Your task to perform on an android device: Go to location settings Image 0: 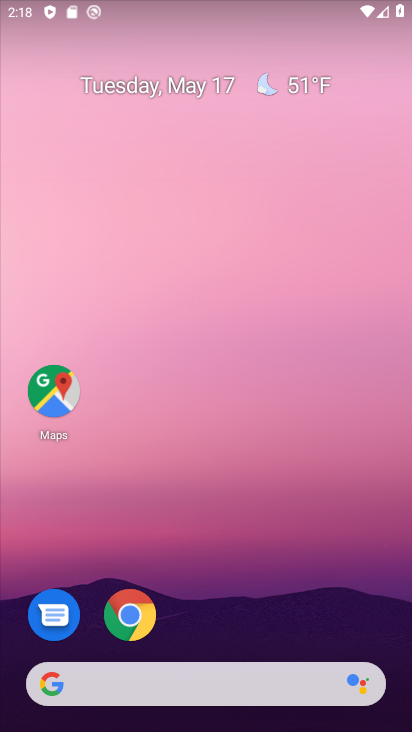
Step 0: press home button
Your task to perform on an android device: Go to location settings Image 1: 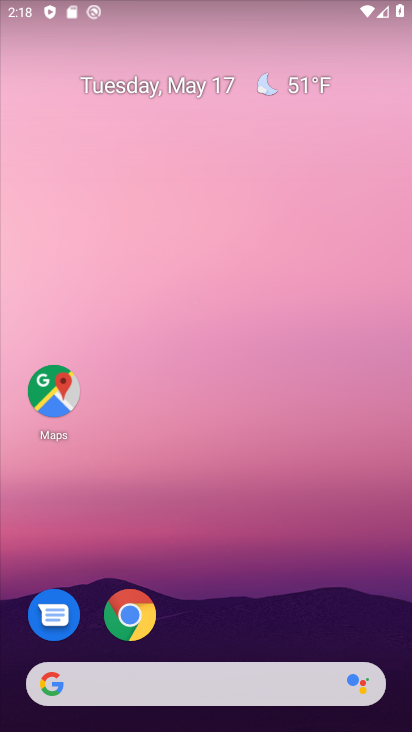
Step 1: drag from (212, 638) to (266, 140)
Your task to perform on an android device: Go to location settings Image 2: 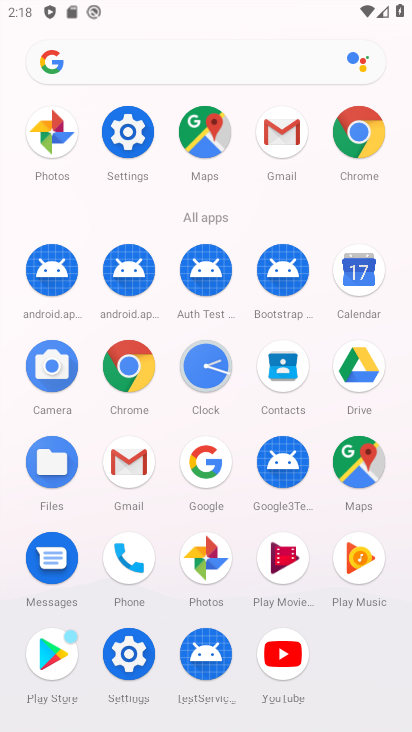
Step 2: click (126, 642)
Your task to perform on an android device: Go to location settings Image 3: 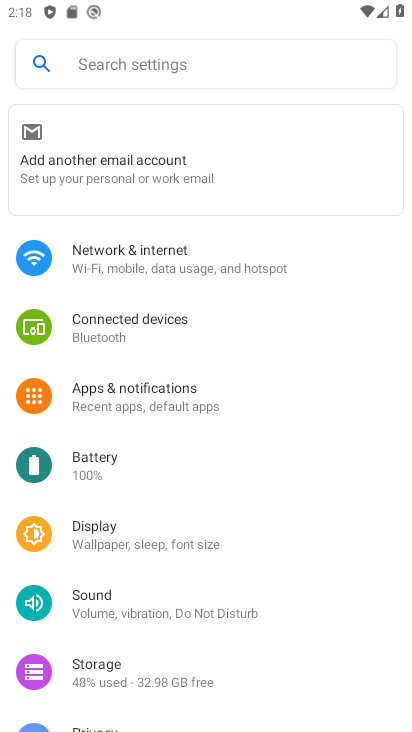
Step 3: drag from (150, 659) to (150, 268)
Your task to perform on an android device: Go to location settings Image 4: 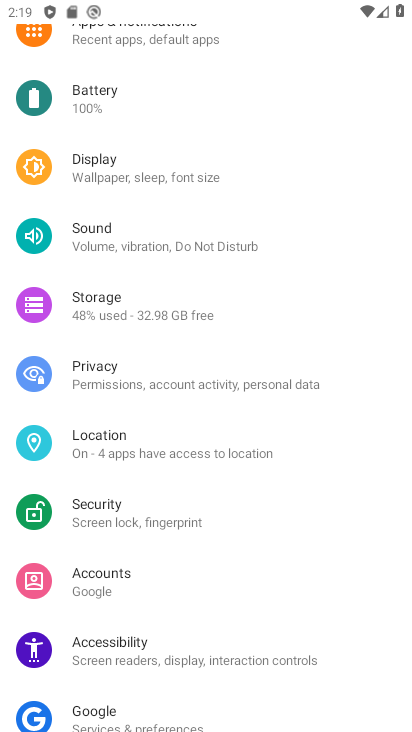
Step 4: click (140, 431)
Your task to perform on an android device: Go to location settings Image 5: 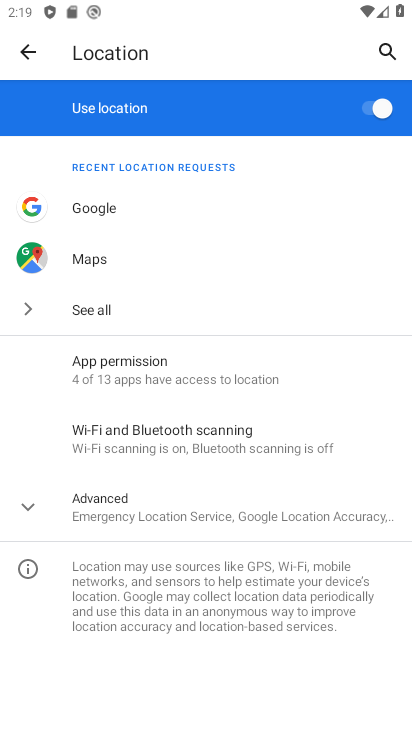
Step 5: click (27, 508)
Your task to perform on an android device: Go to location settings Image 6: 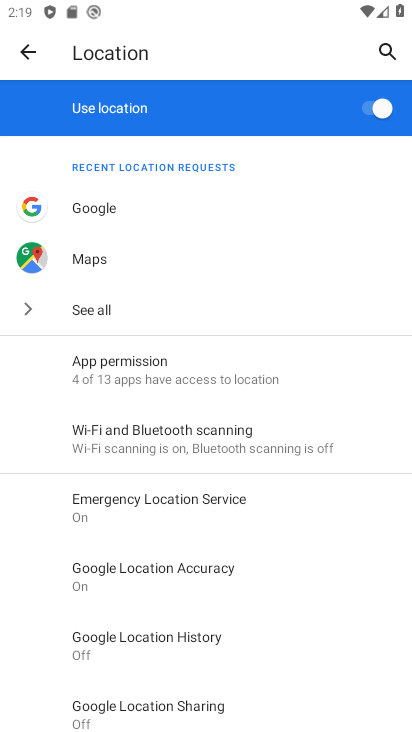
Step 6: task complete